Your task to perform on an android device: Go to Android settings Image 0: 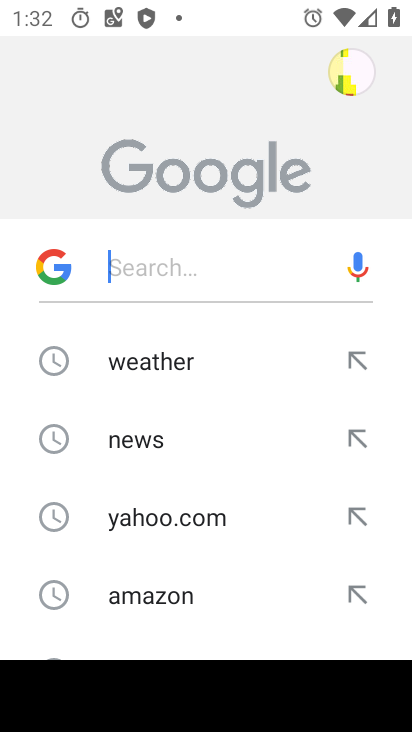
Step 0: press back button
Your task to perform on an android device: Go to Android settings Image 1: 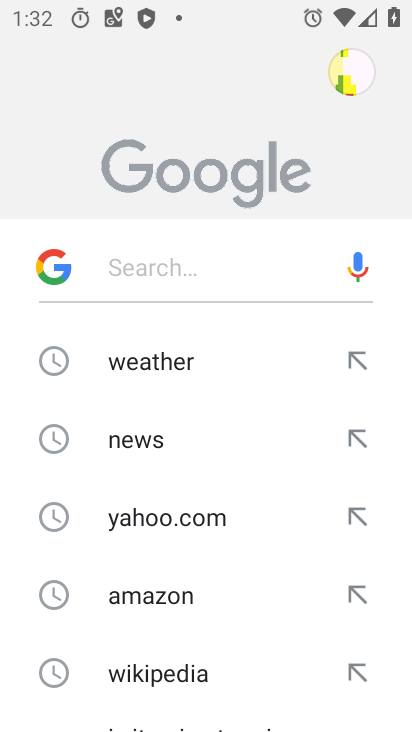
Step 1: press home button
Your task to perform on an android device: Go to Android settings Image 2: 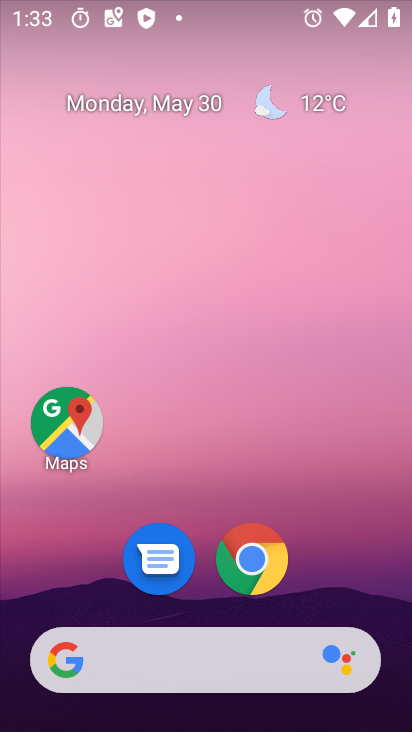
Step 2: drag from (179, 497) to (244, 103)
Your task to perform on an android device: Go to Android settings Image 3: 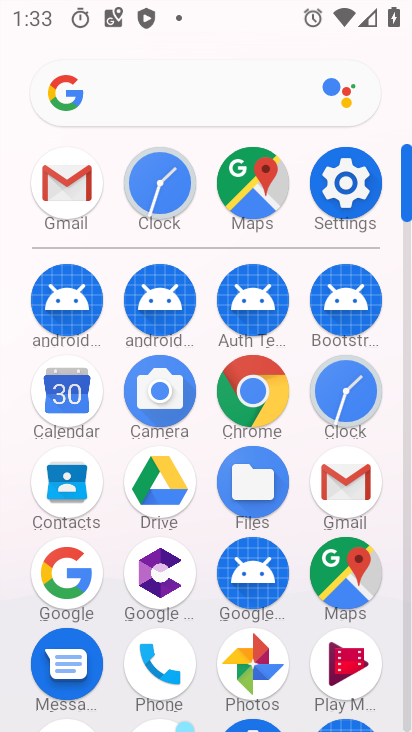
Step 3: click (338, 165)
Your task to perform on an android device: Go to Android settings Image 4: 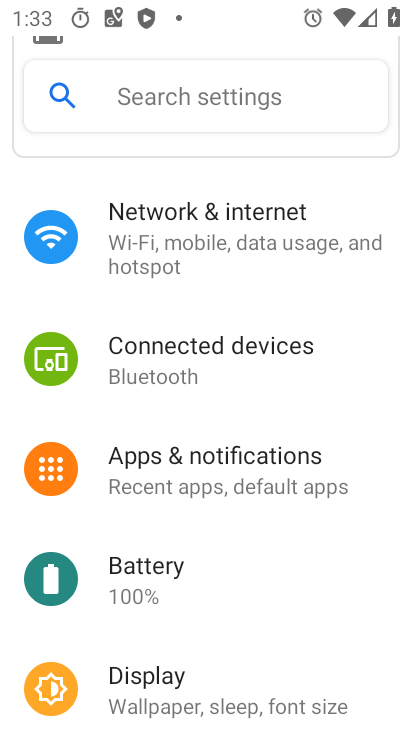
Step 4: drag from (188, 632) to (296, 122)
Your task to perform on an android device: Go to Android settings Image 5: 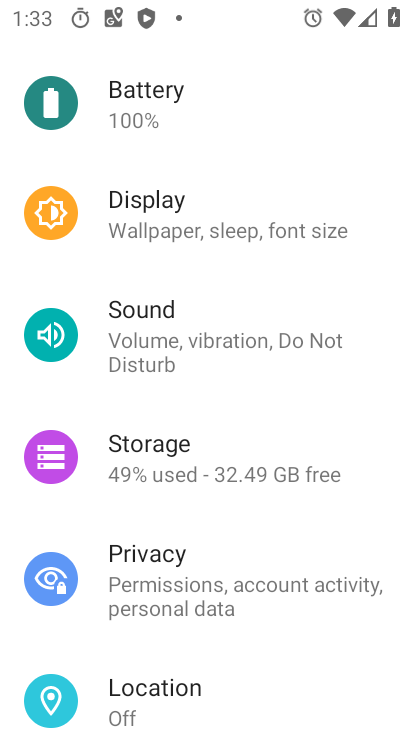
Step 5: drag from (164, 630) to (258, 109)
Your task to perform on an android device: Go to Android settings Image 6: 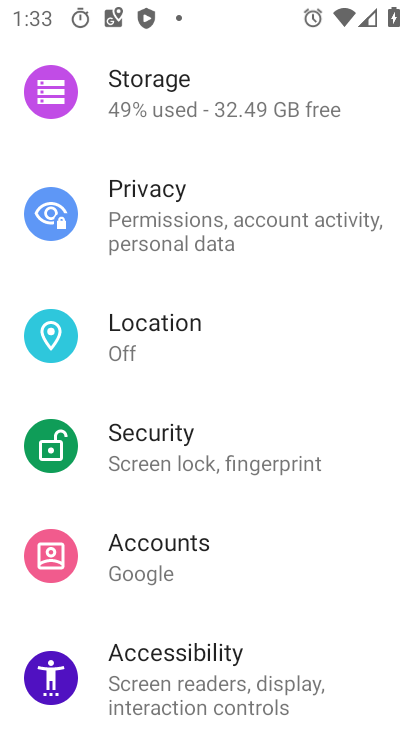
Step 6: drag from (184, 586) to (229, 207)
Your task to perform on an android device: Go to Android settings Image 7: 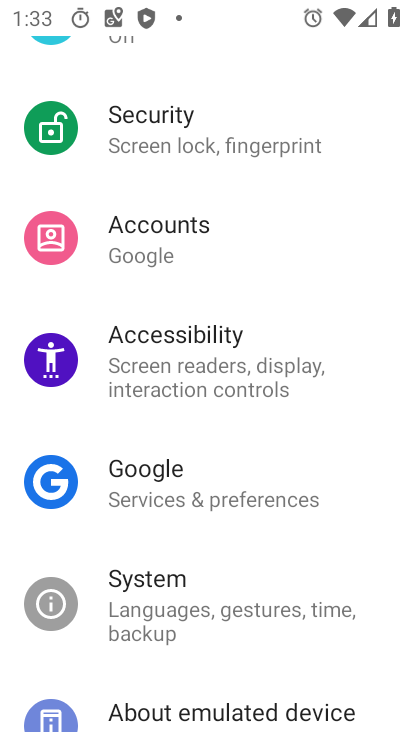
Step 7: drag from (171, 590) to (256, 63)
Your task to perform on an android device: Go to Android settings Image 8: 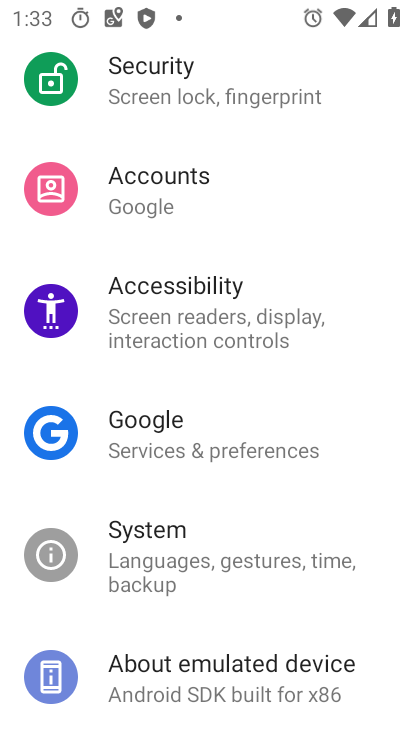
Step 8: click (146, 661)
Your task to perform on an android device: Go to Android settings Image 9: 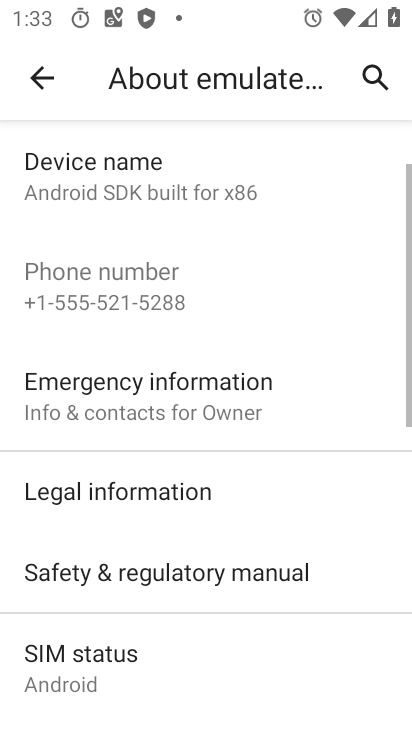
Step 9: task complete